Your task to perform on an android device: toggle sleep mode Image 0: 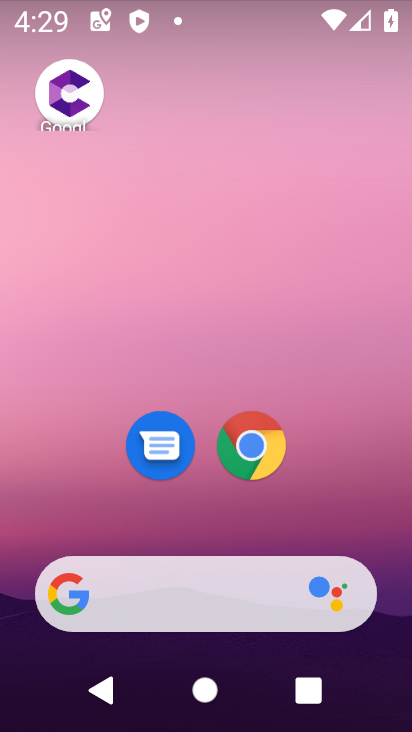
Step 0: drag from (398, 602) to (315, 89)
Your task to perform on an android device: toggle sleep mode Image 1: 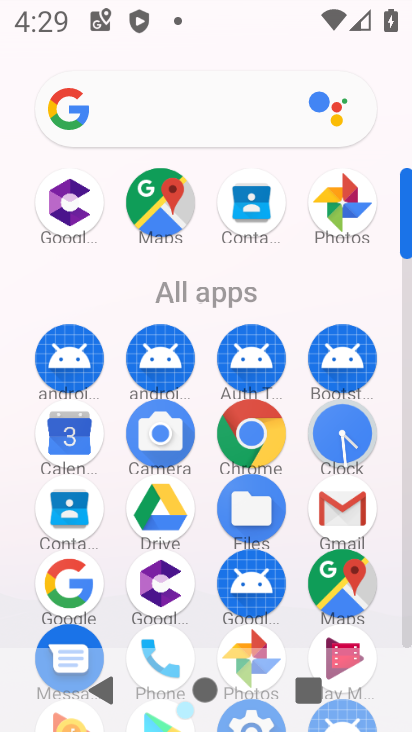
Step 1: click (404, 643)
Your task to perform on an android device: toggle sleep mode Image 2: 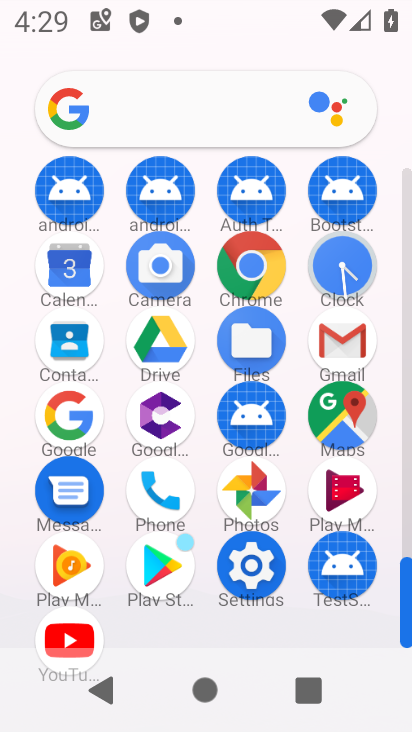
Step 2: click (253, 574)
Your task to perform on an android device: toggle sleep mode Image 3: 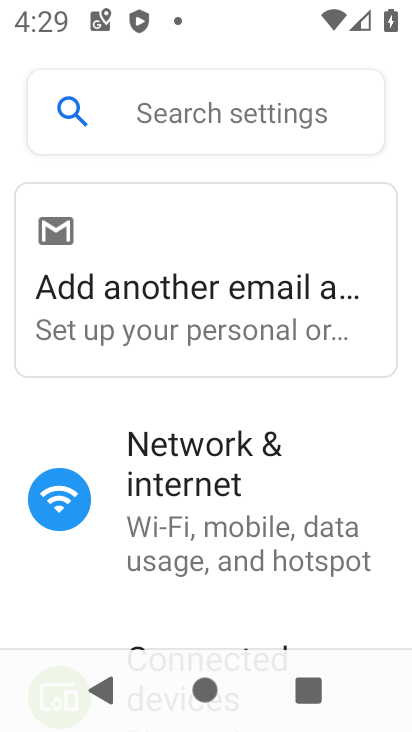
Step 3: drag from (253, 574) to (217, 145)
Your task to perform on an android device: toggle sleep mode Image 4: 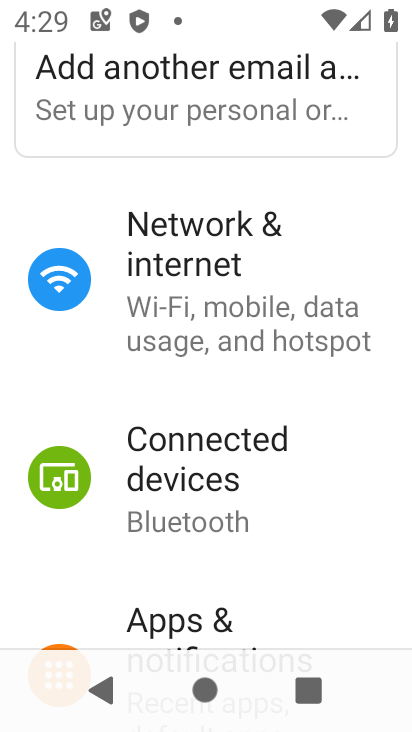
Step 4: drag from (237, 509) to (216, 149)
Your task to perform on an android device: toggle sleep mode Image 5: 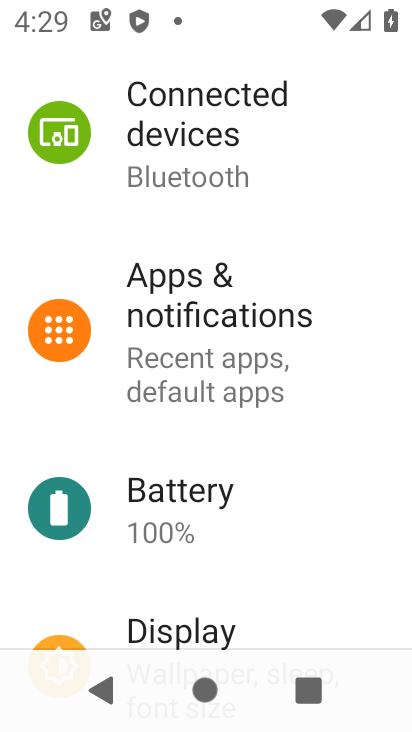
Step 5: click (248, 627)
Your task to perform on an android device: toggle sleep mode Image 6: 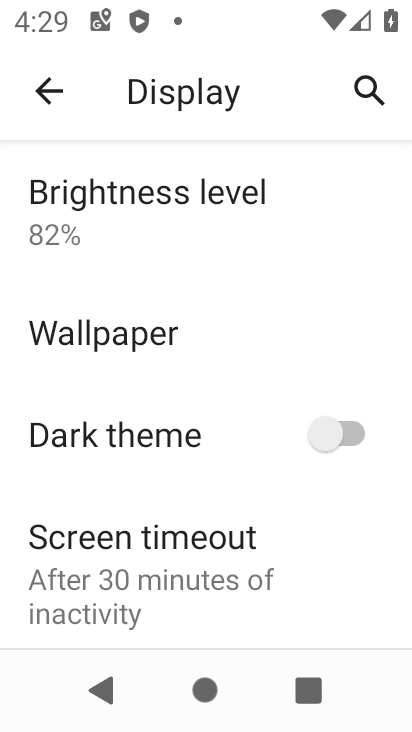
Step 6: drag from (258, 610) to (257, 175)
Your task to perform on an android device: toggle sleep mode Image 7: 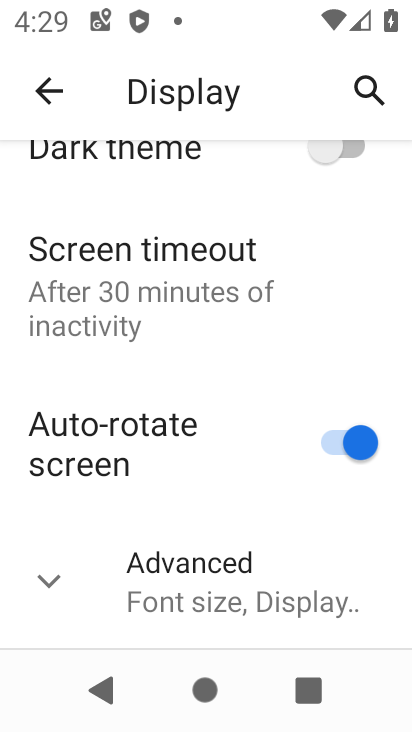
Step 7: click (291, 616)
Your task to perform on an android device: toggle sleep mode Image 8: 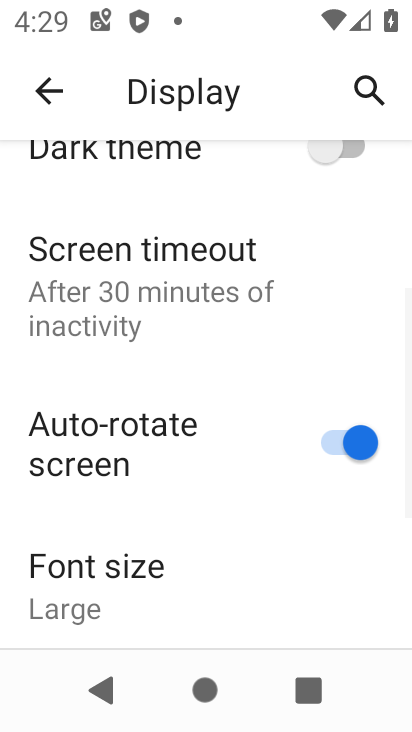
Step 8: task complete